Your task to perform on an android device: Open Google Chrome and click the shortcut for Amazon.com Image 0: 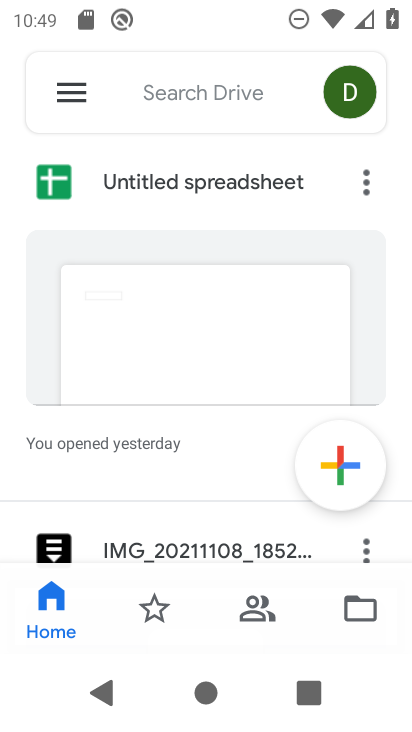
Step 0: press home button
Your task to perform on an android device: Open Google Chrome and click the shortcut for Amazon.com Image 1: 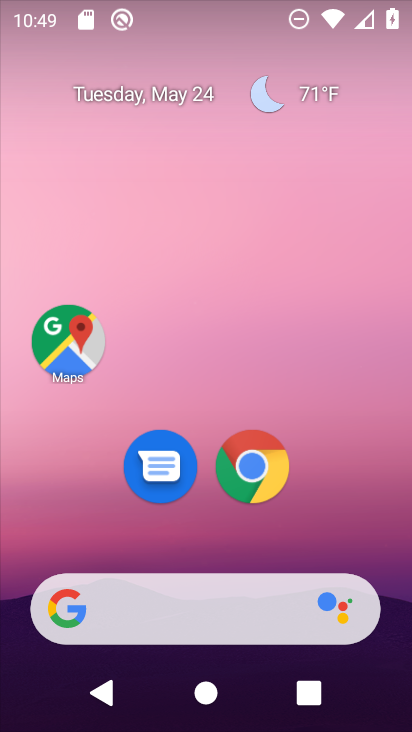
Step 1: click (257, 456)
Your task to perform on an android device: Open Google Chrome and click the shortcut for Amazon.com Image 2: 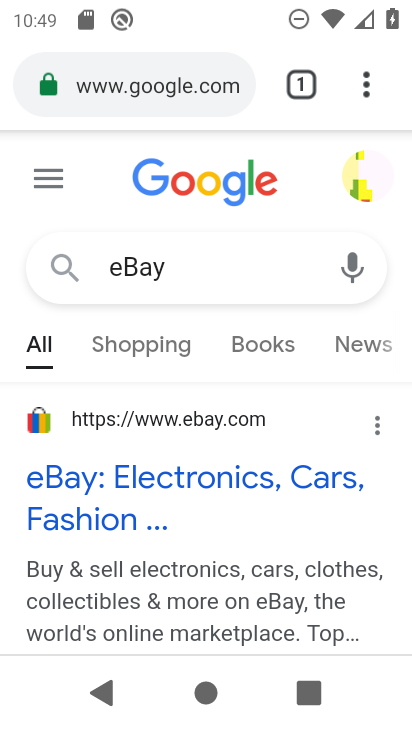
Step 2: click (368, 87)
Your task to perform on an android device: Open Google Chrome and click the shortcut for Amazon.com Image 3: 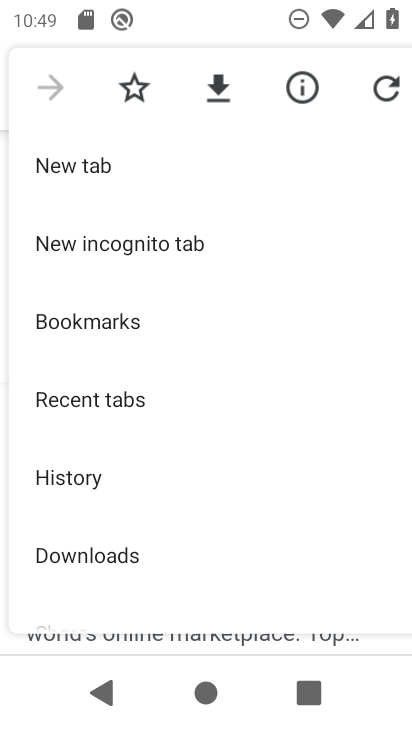
Step 3: click (126, 158)
Your task to perform on an android device: Open Google Chrome and click the shortcut for Amazon.com Image 4: 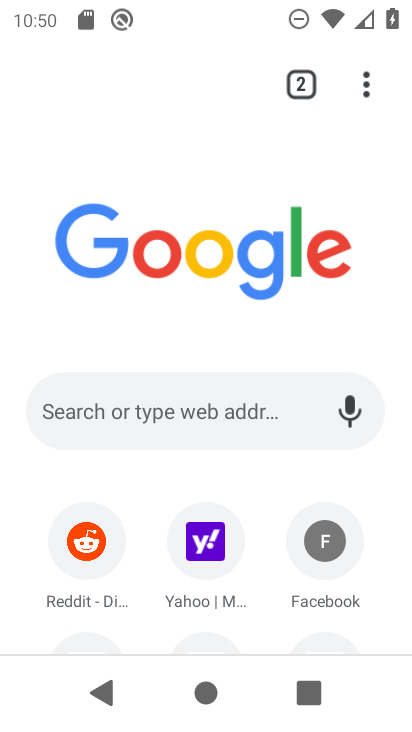
Step 4: drag from (136, 490) to (173, 299)
Your task to perform on an android device: Open Google Chrome and click the shortcut for Amazon.com Image 5: 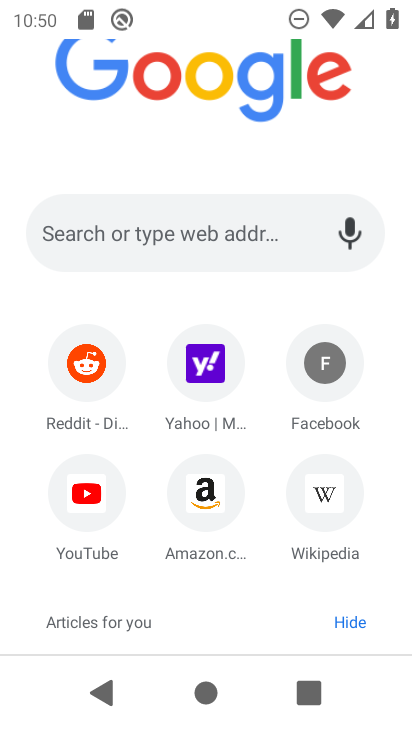
Step 5: click (207, 538)
Your task to perform on an android device: Open Google Chrome and click the shortcut for Amazon.com Image 6: 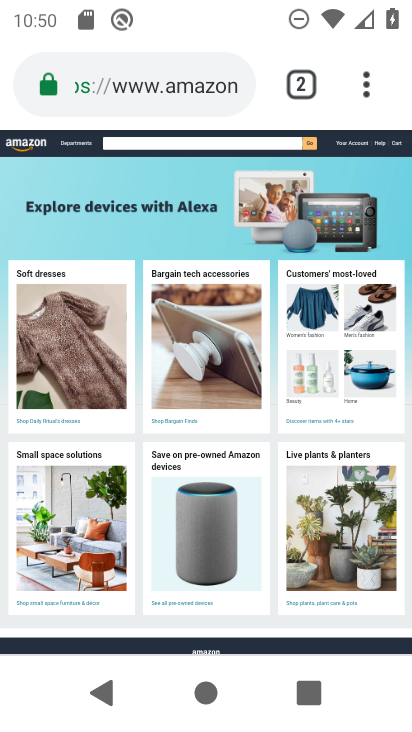
Step 6: task complete